Your task to perform on an android device: Open the calendar app, open the side menu, and click the "Day" option Image 0: 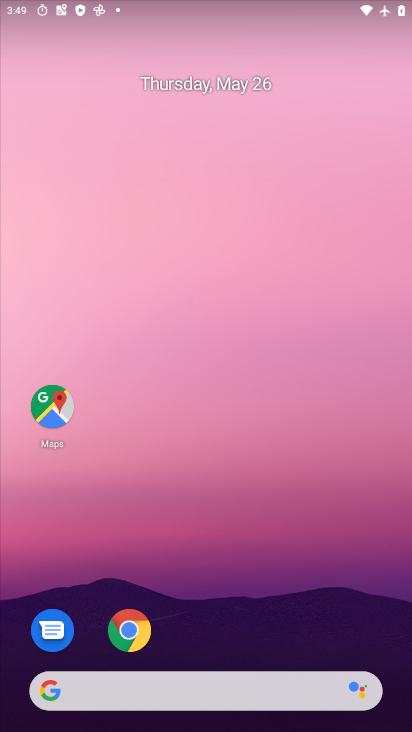
Step 0: drag from (196, 625) to (244, 13)
Your task to perform on an android device: Open the calendar app, open the side menu, and click the "Day" option Image 1: 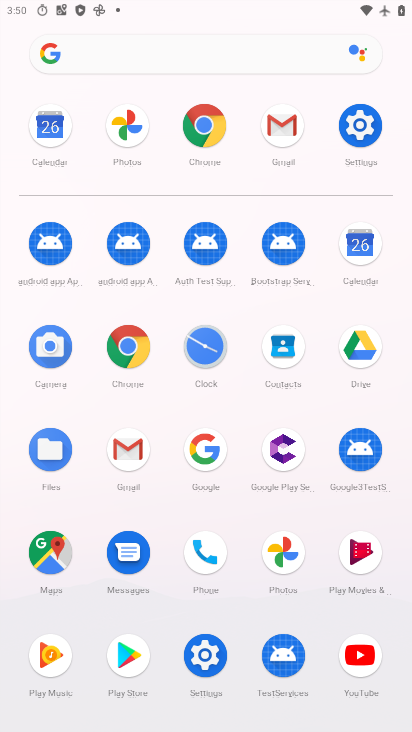
Step 1: click (285, 172)
Your task to perform on an android device: Open the calendar app, open the side menu, and click the "Day" option Image 2: 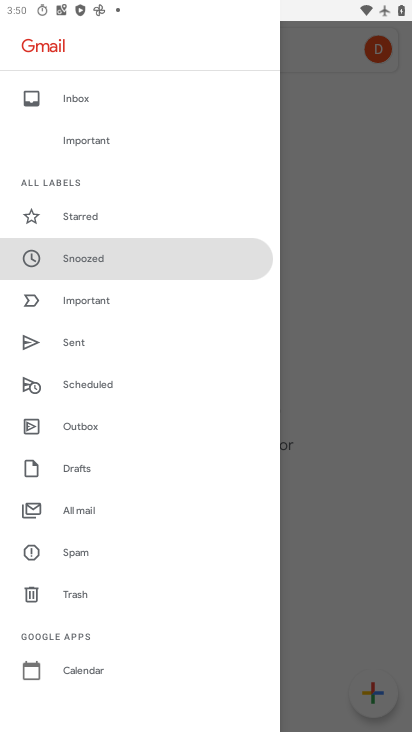
Step 2: click (403, 259)
Your task to perform on an android device: Open the calendar app, open the side menu, and click the "Day" option Image 3: 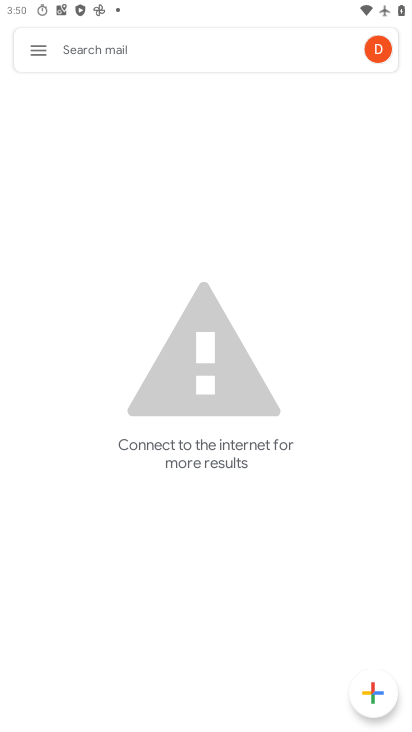
Step 3: press home button
Your task to perform on an android device: Open the calendar app, open the side menu, and click the "Day" option Image 4: 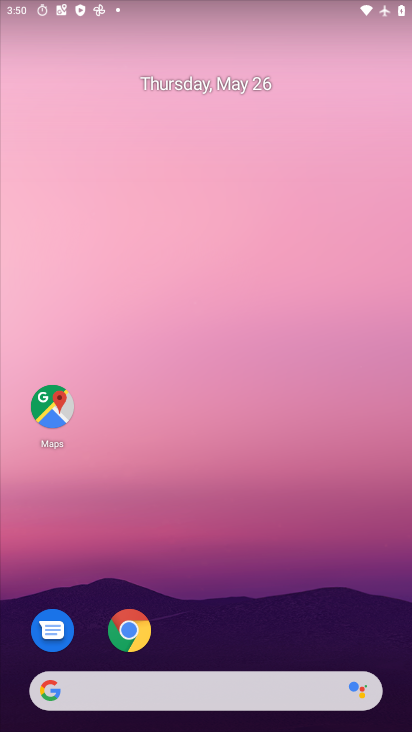
Step 4: drag from (262, 613) to (152, 248)
Your task to perform on an android device: Open the calendar app, open the side menu, and click the "Day" option Image 5: 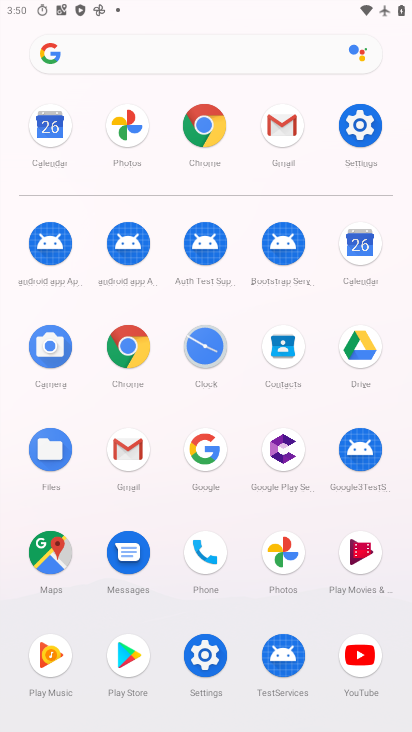
Step 5: click (375, 238)
Your task to perform on an android device: Open the calendar app, open the side menu, and click the "Day" option Image 6: 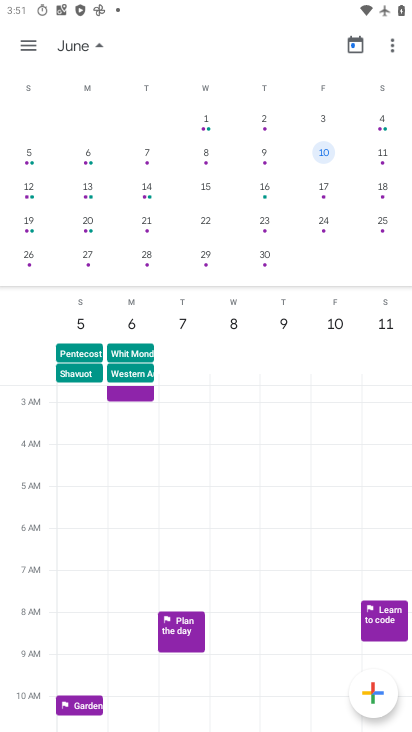
Step 6: click (18, 60)
Your task to perform on an android device: Open the calendar app, open the side menu, and click the "Day" option Image 7: 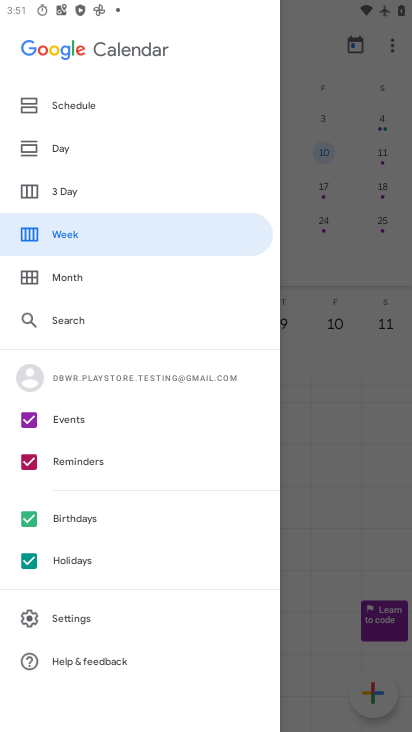
Step 7: click (65, 155)
Your task to perform on an android device: Open the calendar app, open the side menu, and click the "Day" option Image 8: 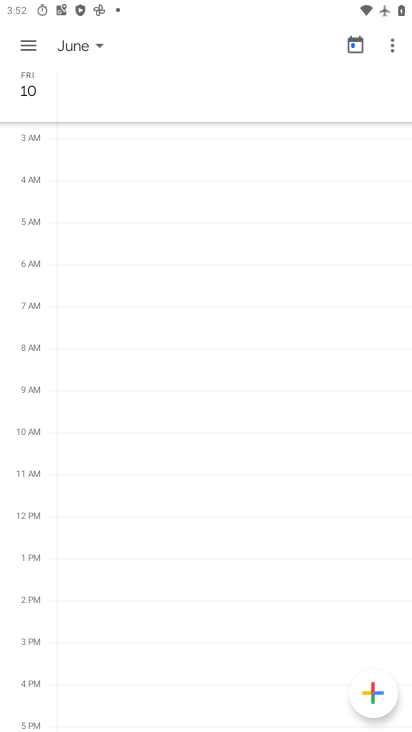
Step 8: task complete